Your task to perform on an android device: Go to eBay Image 0: 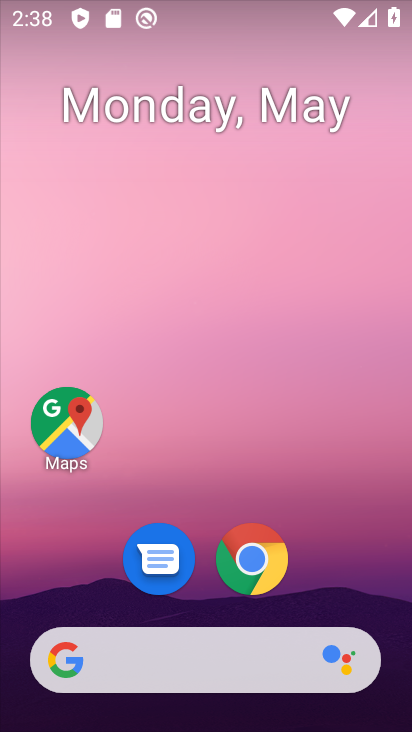
Step 0: click (269, 557)
Your task to perform on an android device: Go to eBay Image 1: 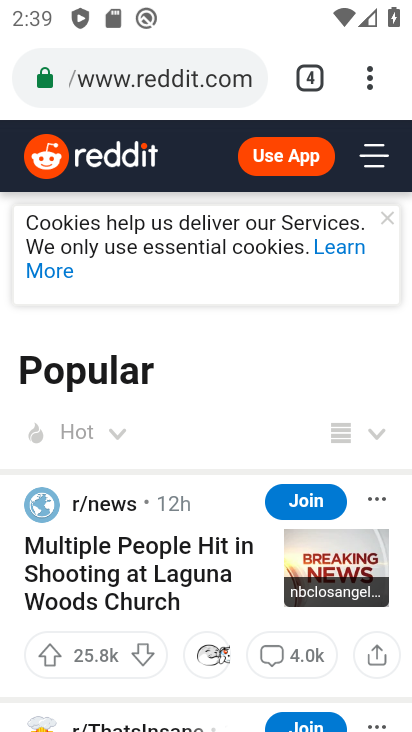
Step 1: click (229, 95)
Your task to perform on an android device: Go to eBay Image 2: 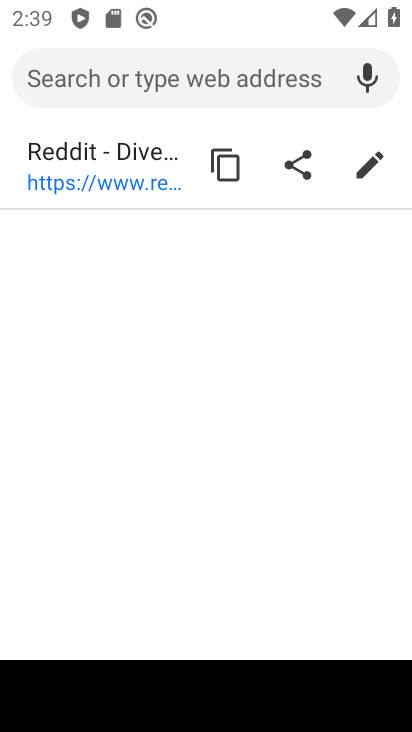
Step 2: type "eBay"
Your task to perform on an android device: Go to eBay Image 3: 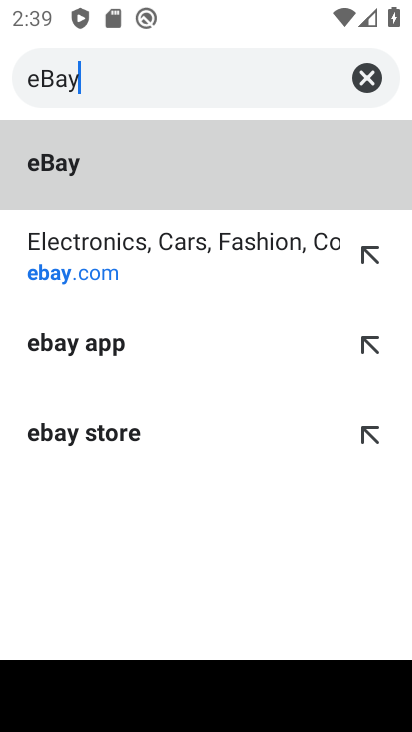
Step 3: click (64, 162)
Your task to perform on an android device: Go to eBay Image 4: 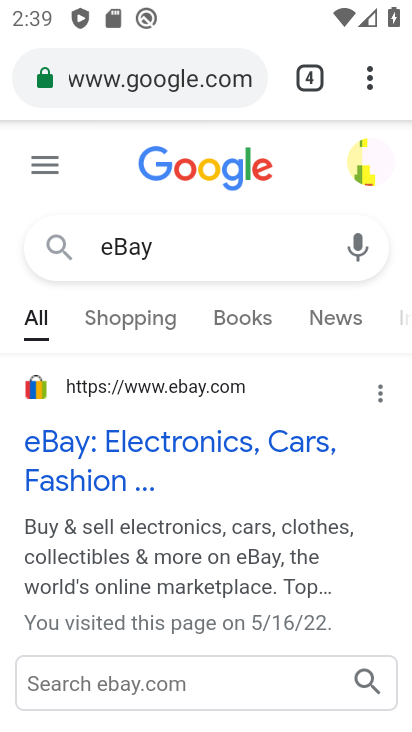
Step 4: click (192, 447)
Your task to perform on an android device: Go to eBay Image 5: 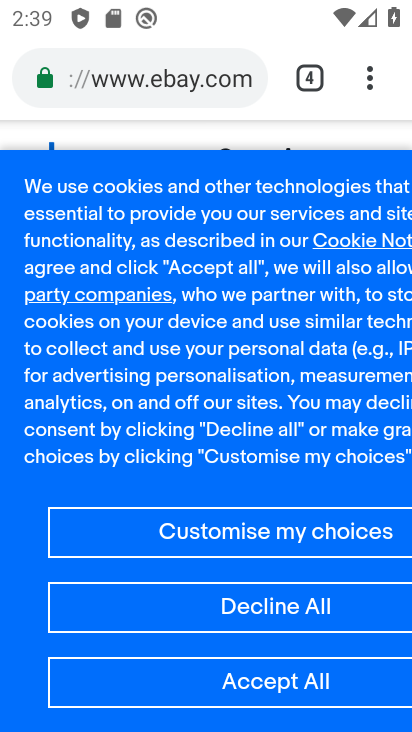
Step 5: click (328, 685)
Your task to perform on an android device: Go to eBay Image 6: 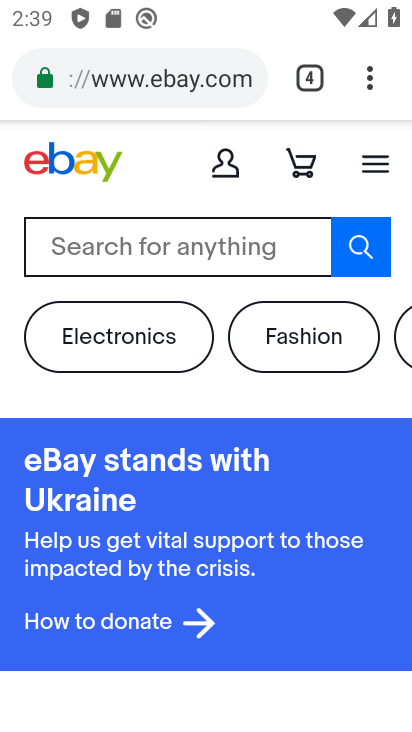
Step 6: task complete